Your task to perform on an android device: Open display settings Image 0: 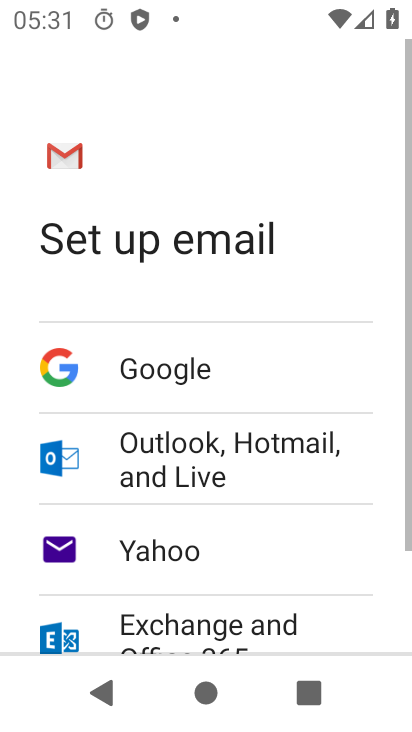
Step 0: press home button
Your task to perform on an android device: Open display settings Image 1: 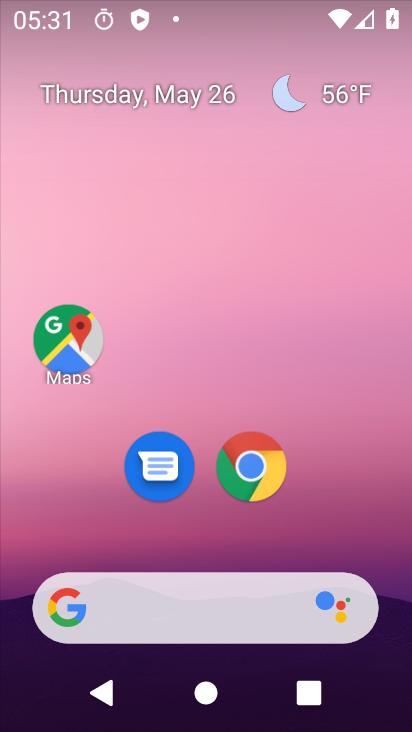
Step 1: drag from (323, 530) to (315, 120)
Your task to perform on an android device: Open display settings Image 2: 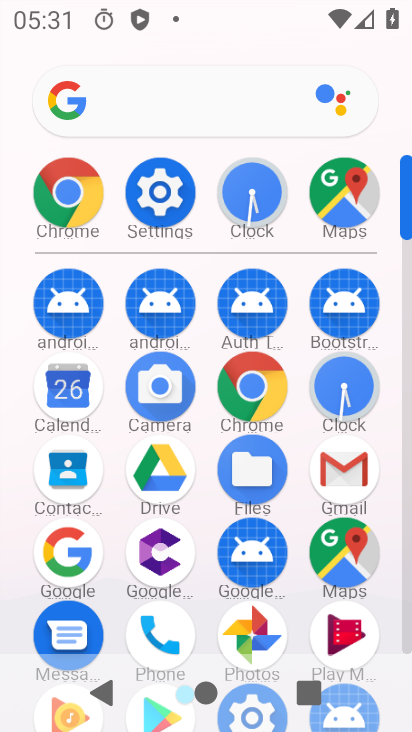
Step 2: click (158, 192)
Your task to perform on an android device: Open display settings Image 3: 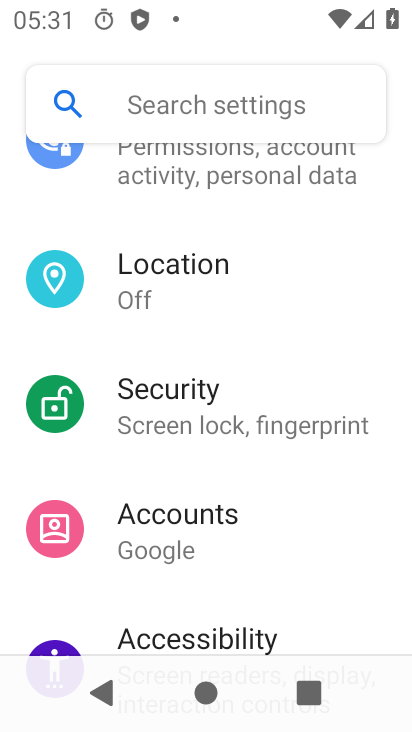
Step 3: drag from (279, 303) to (286, 548)
Your task to perform on an android device: Open display settings Image 4: 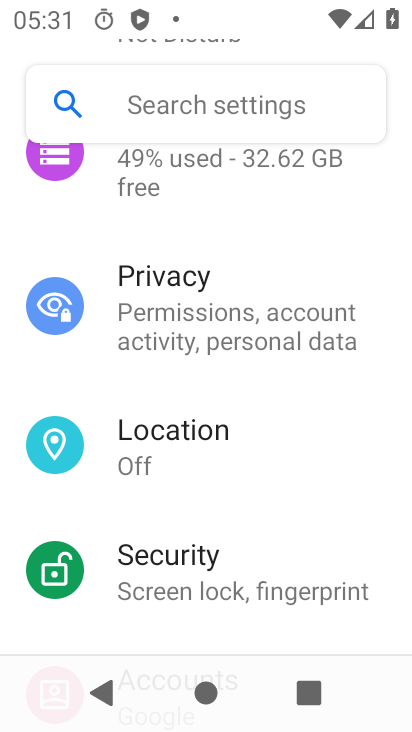
Step 4: drag from (291, 251) to (284, 530)
Your task to perform on an android device: Open display settings Image 5: 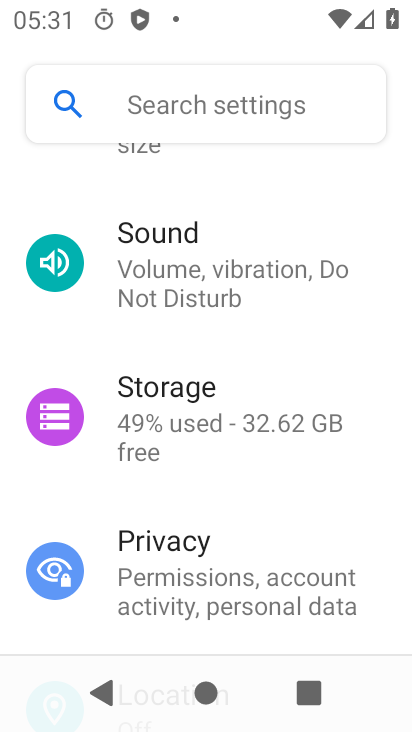
Step 5: drag from (287, 231) to (281, 569)
Your task to perform on an android device: Open display settings Image 6: 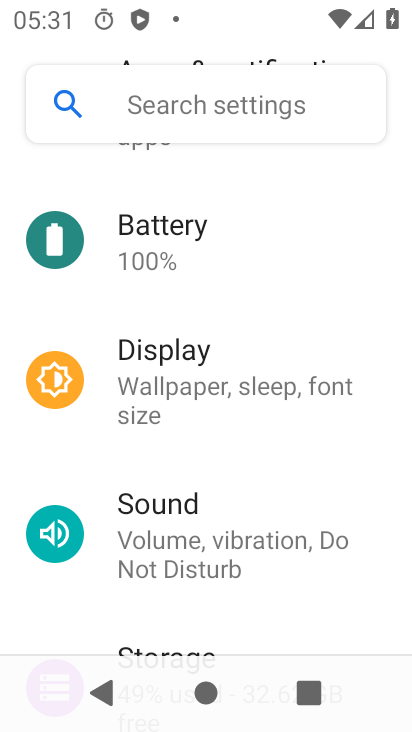
Step 6: click (190, 367)
Your task to perform on an android device: Open display settings Image 7: 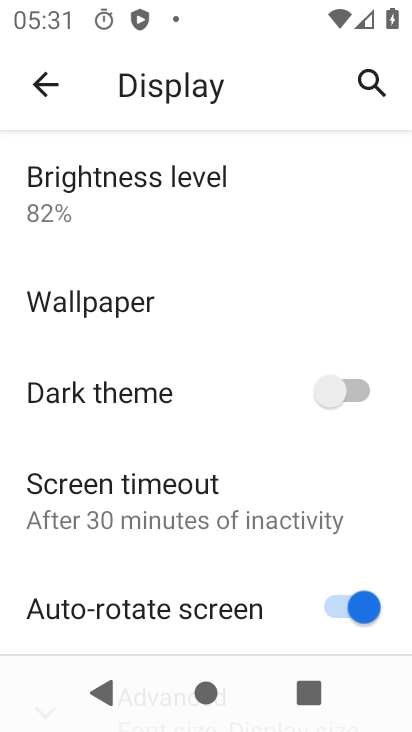
Step 7: task complete